Your task to perform on an android device: toggle data saver in the chrome app Image 0: 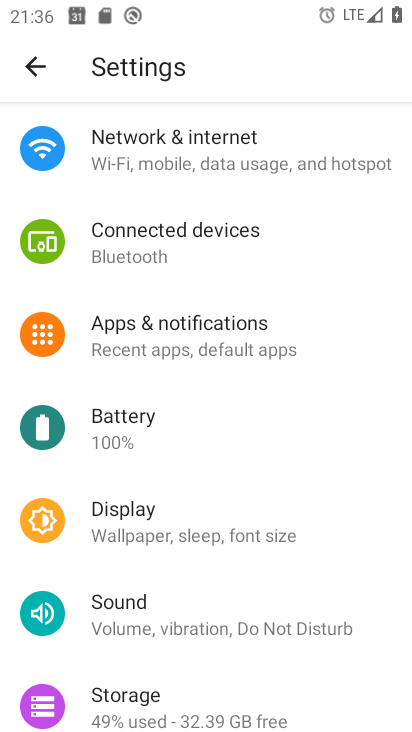
Step 0: press home button
Your task to perform on an android device: toggle data saver in the chrome app Image 1: 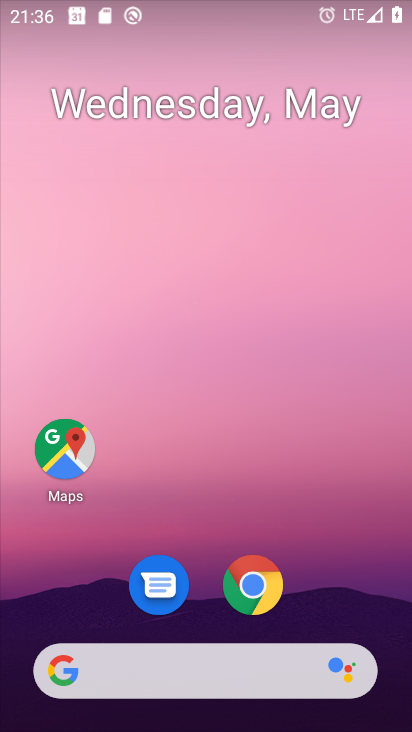
Step 1: drag from (311, 573) to (287, 96)
Your task to perform on an android device: toggle data saver in the chrome app Image 2: 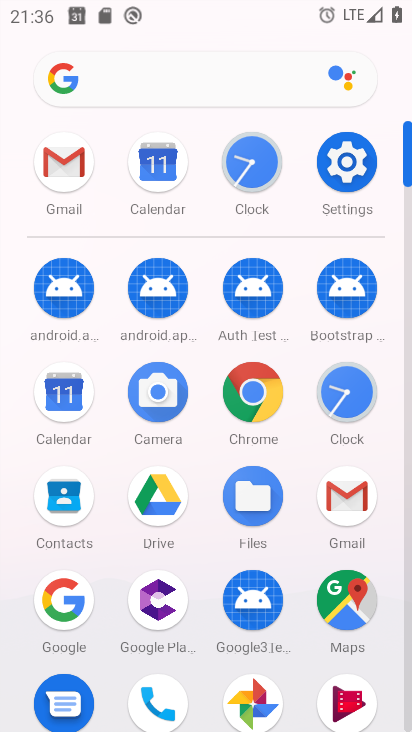
Step 2: click (269, 396)
Your task to perform on an android device: toggle data saver in the chrome app Image 3: 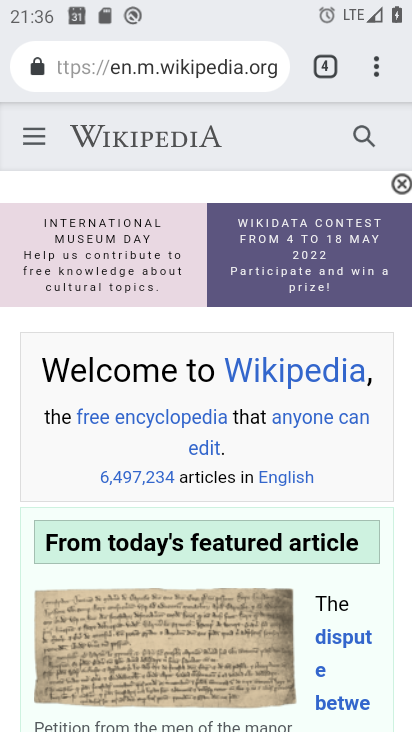
Step 3: click (373, 65)
Your task to perform on an android device: toggle data saver in the chrome app Image 4: 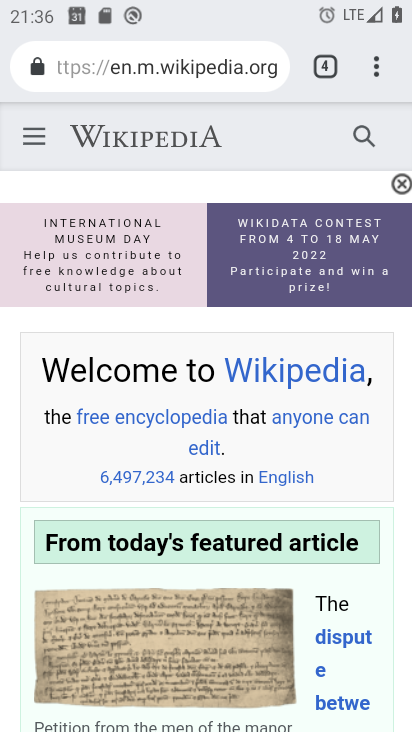
Step 4: click (373, 67)
Your task to perform on an android device: toggle data saver in the chrome app Image 5: 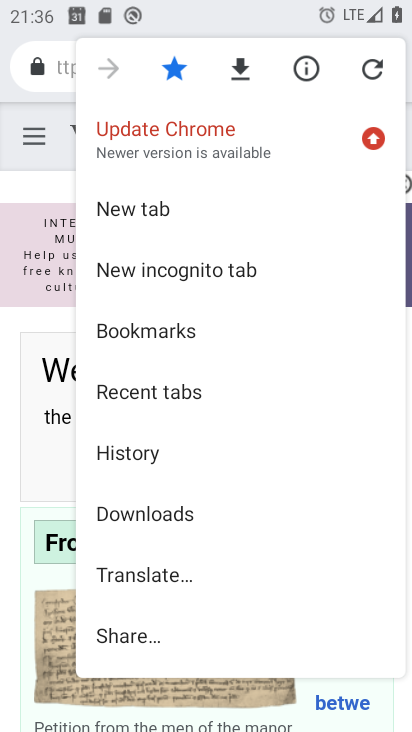
Step 5: drag from (243, 527) to (271, 184)
Your task to perform on an android device: toggle data saver in the chrome app Image 6: 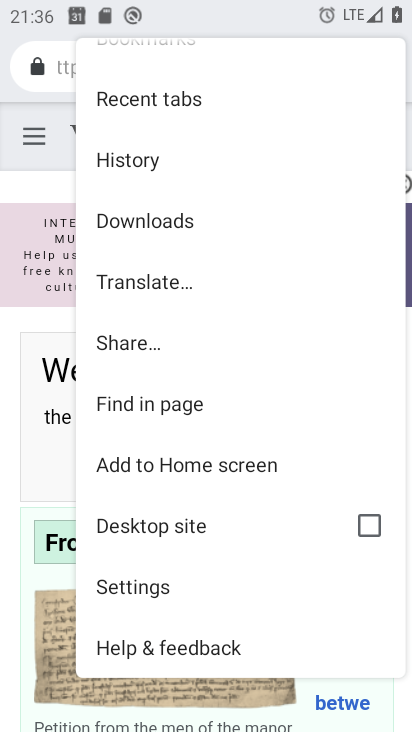
Step 6: click (179, 574)
Your task to perform on an android device: toggle data saver in the chrome app Image 7: 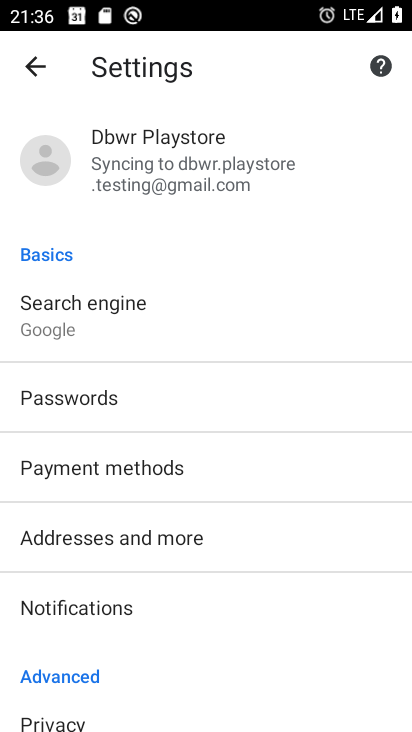
Step 7: drag from (248, 508) to (264, 108)
Your task to perform on an android device: toggle data saver in the chrome app Image 8: 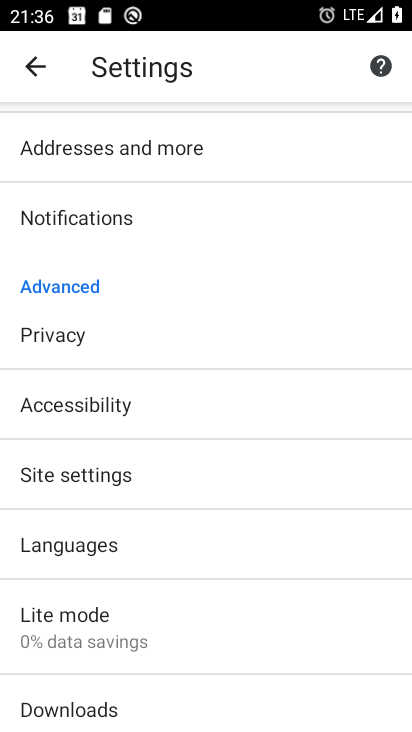
Step 8: click (143, 626)
Your task to perform on an android device: toggle data saver in the chrome app Image 9: 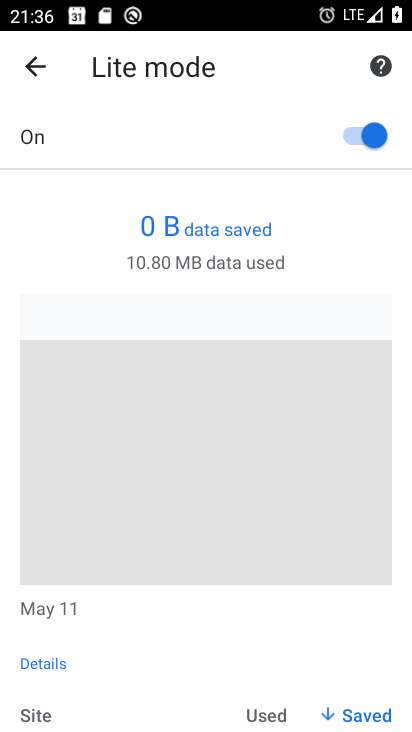
Step 9: click (353, 127)
Your task to perform on an android device: toggle data saver in the chrome app Image 10: 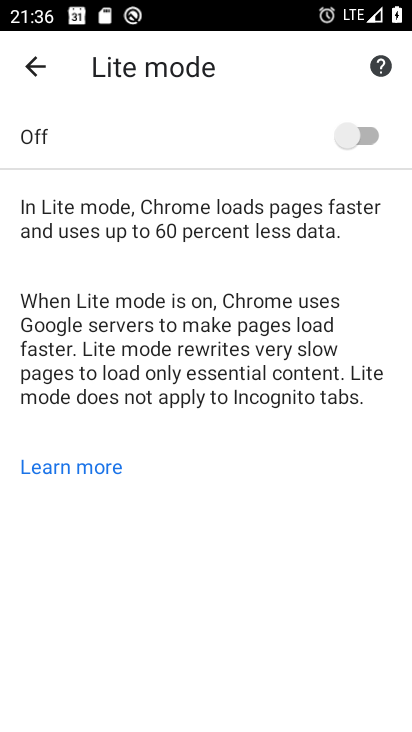
Step 10: task complete